Your task to perform on an android device: Do I have any events this weekend? Image 0: 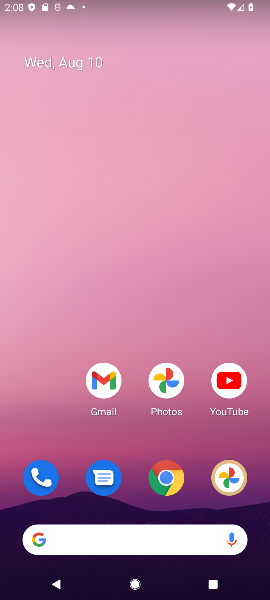
Step 0: drag from (187, 296) to (228, 44)
Your task to perform on an android device: Do I have any events this weekend? Image 1: 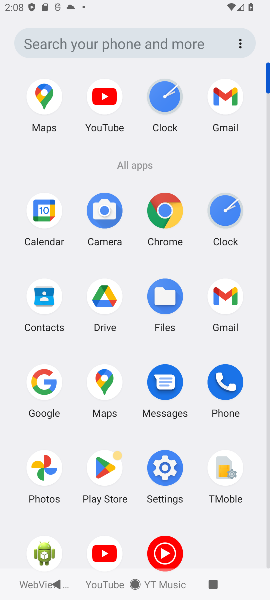
Step 1: click (41, 213)
Your task to perform on an android device: Do I have any events this weekend? Image 2: 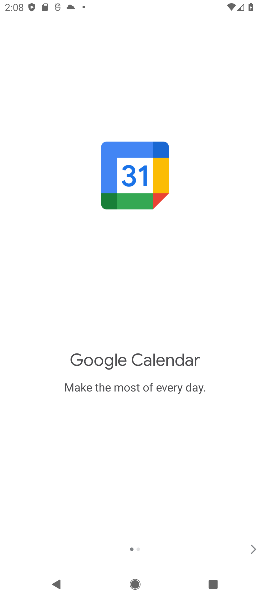
Step 2: task complete